Your task to perform on an android device: change notification settings in the gmail app Image 0: 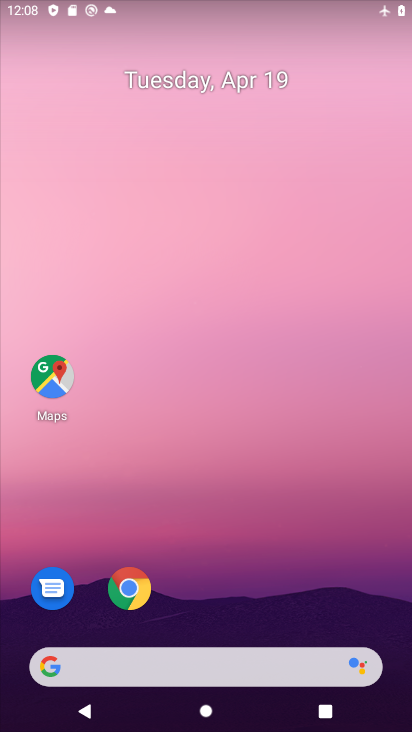
Step 0: drag from (378, 609) to (371, 41)
Your task to perform on an android device: change notification settings in the gmail app Image 1: 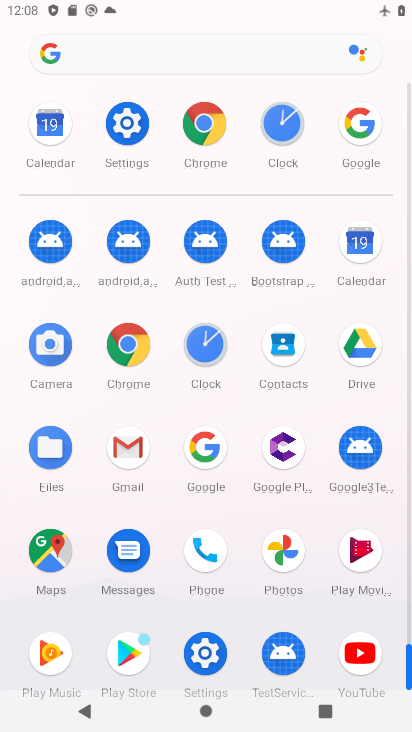
Step 1: click (134, 449)
Your task to perform on an android device: change notification settings in the gmail app Image 2: 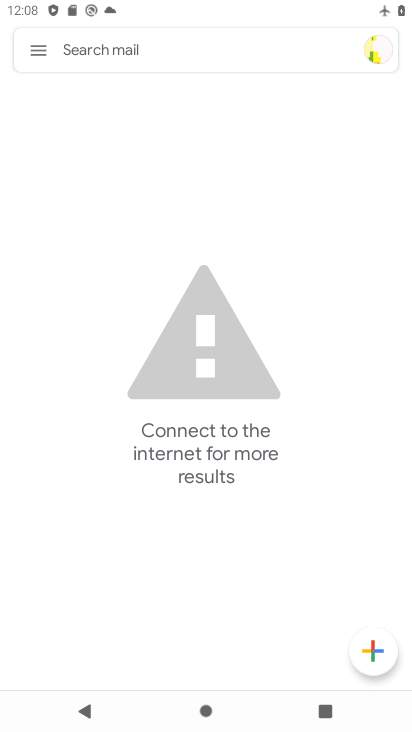
Step 2: click (34, 52)
Your task to perform on an android device: change notification settings in the gmail app Image 3: 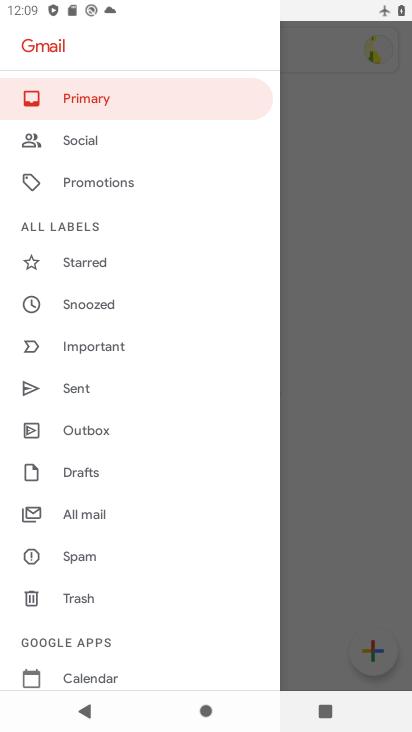
Step 3: drag from (190, 542) to (198, 218)
Your task to perform on an android device: change notification settings in the gmail app Image 4: 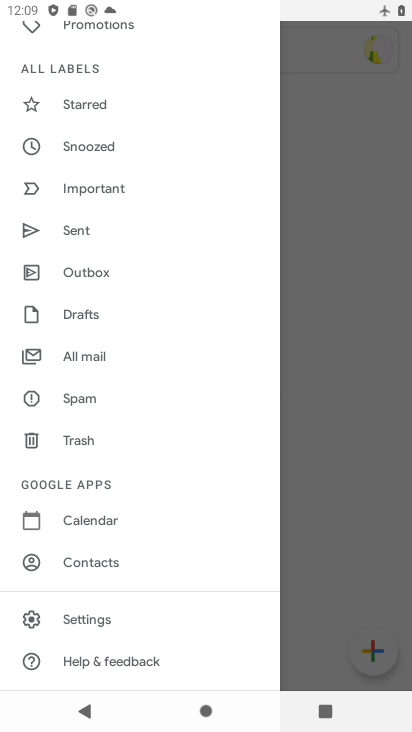
Step 4: click (90, 615)
Your task to perform on an android device: change notification settings in the gmail app Image 5: 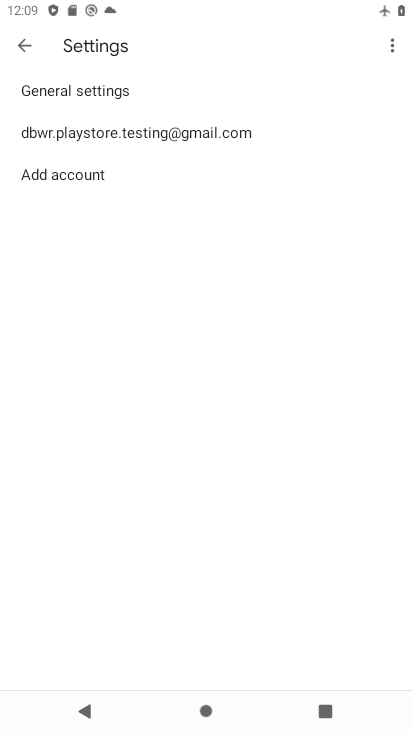
Step 5: click (156, 128)
Your task to perform on an android device: change notification settings in the gmail app Image 6: 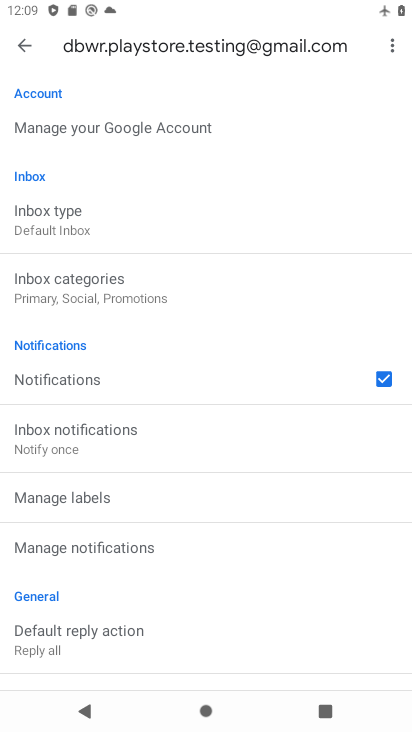
Step 6: drag from (278, 553) to (290, 347)
Your task to perform on an android device: change notification settings in the gmail app Image 7: 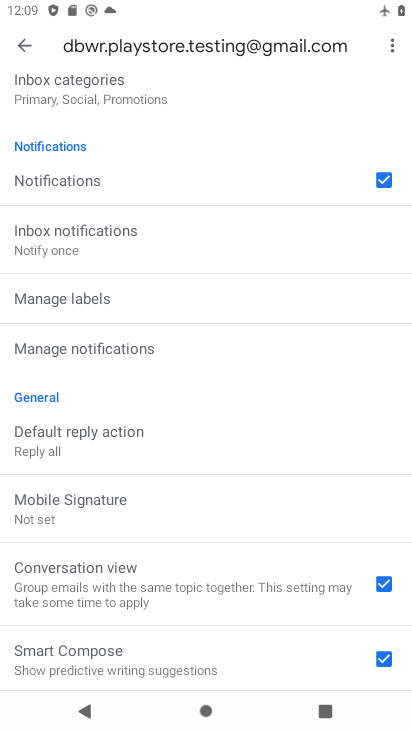
Step 7: drag from (270, 513) to (265, 348)
Your task to perform on an android device: change notification settings in the gmail app Image 8: 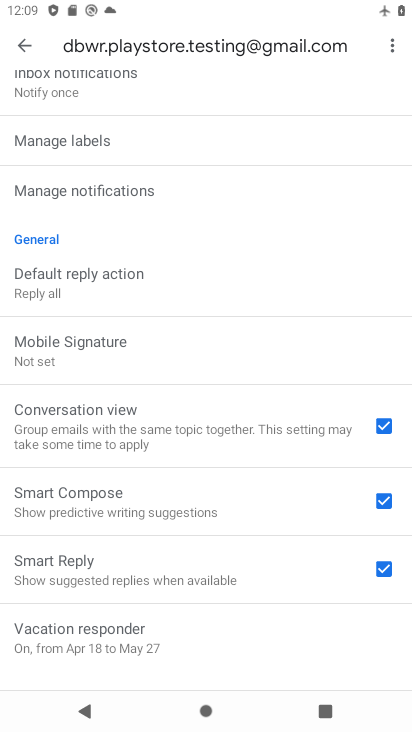
Step 8: drag from (266, 583) to (273, 385)
Your task to perform on an android device: change notification settings in the gmail app Image 9: 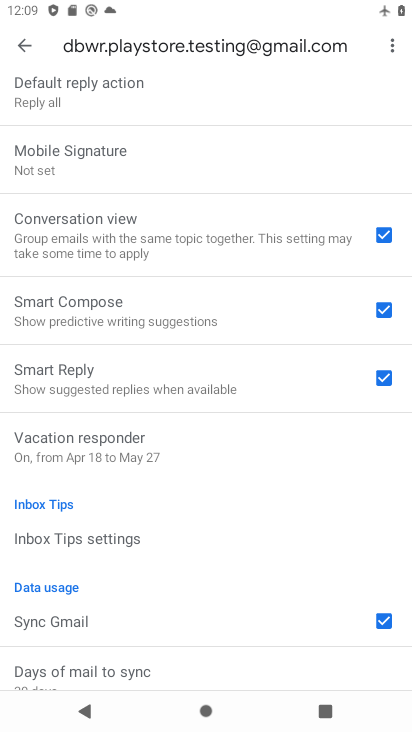
Step 9: drag from (230, 156) to (259, 345)
Your task to perform on an android device: change notification settings in the gmail app Image 10: 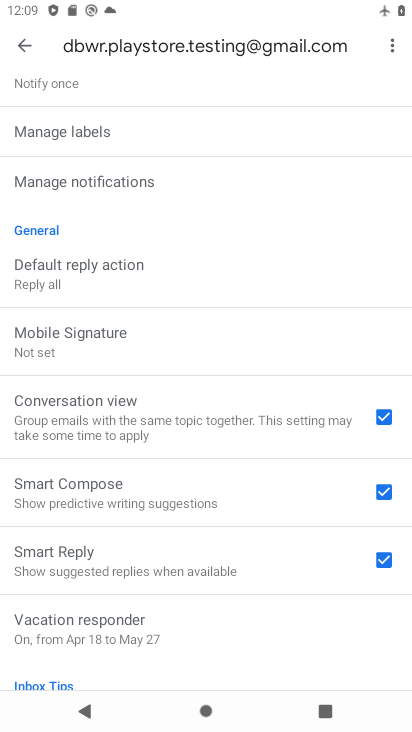
Step 10: click (115, 177)
Your task to perform on an android device: change notification settings in the gmail app Image 11: 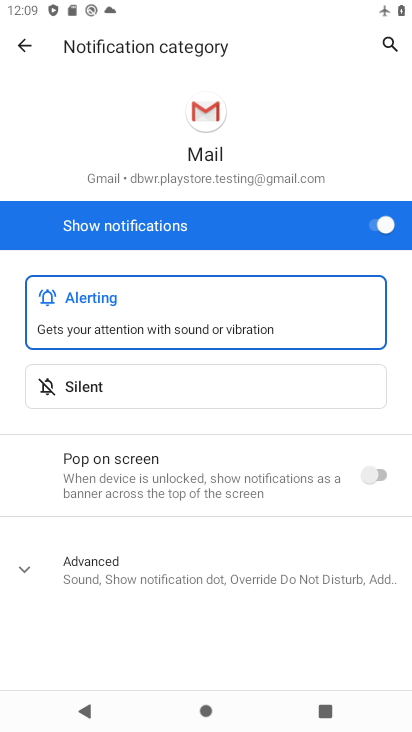
Step 11: click (381, 225)
Your task to perform on an android device: change notification settings in the gmail app Image 12: 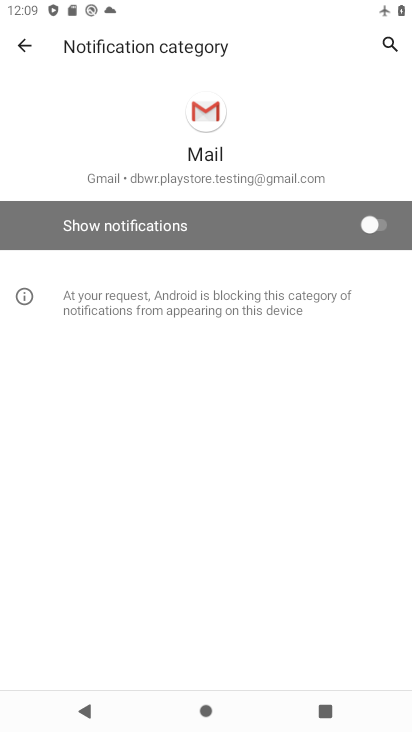
Step 12: task complete